Your task to perform on an android device: delete browsing data in the chrome app Image 0: 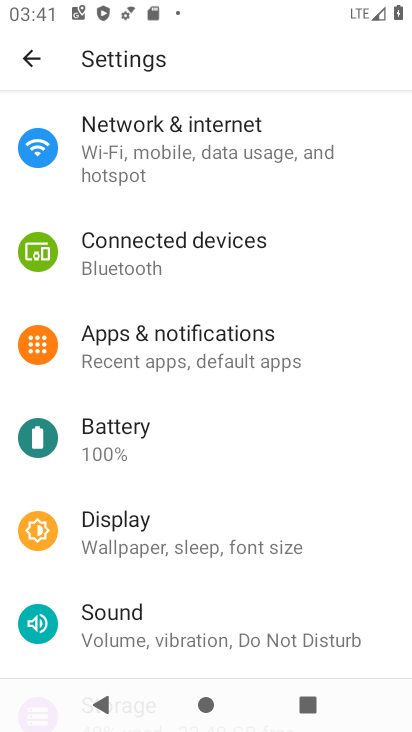
Step 0: press home button
Your task to perform on an android device: delete browsing data in the chrome app Image 1: 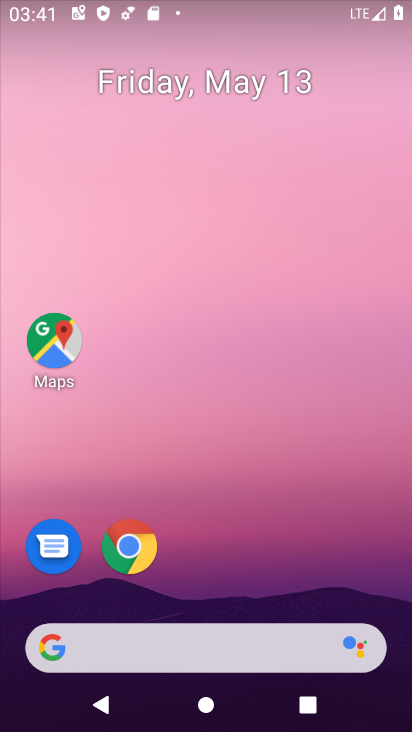
Step 1: click (131, 547)
Your task to perform on an android device: delete browsing data in the chrome app Image 2: 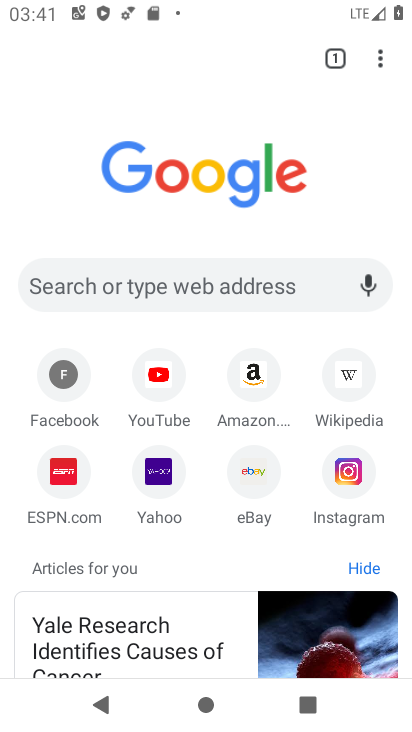
Step 2: click (398, 55)
Your task to perform on an android device: delete browsing data in the chrome app Image 3: 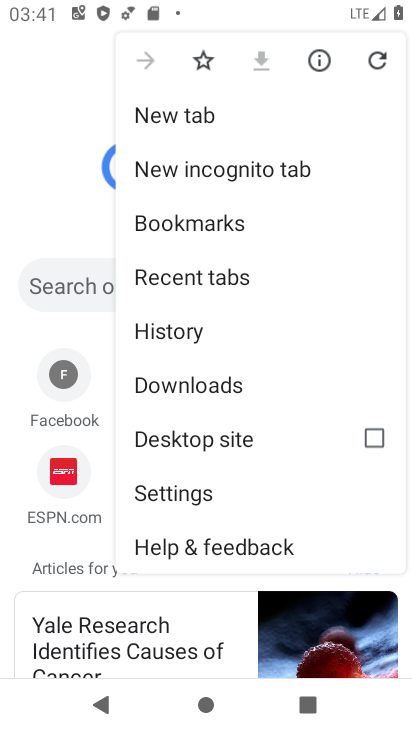
Step 3: click (157, 338)
Your task to perform on an android device: delete browsing data in the chrome app Image 4: 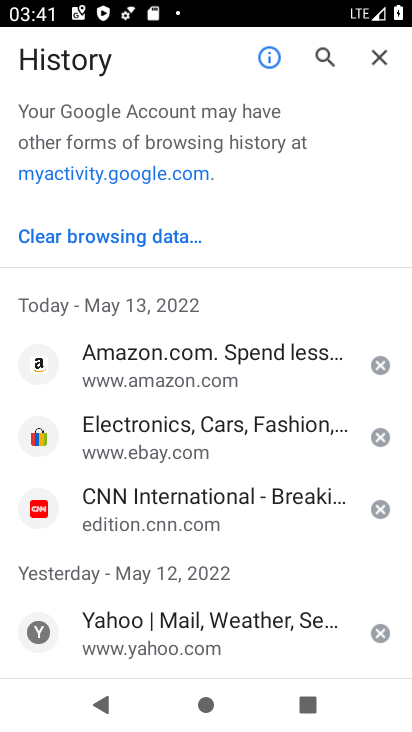
Step 4: click (155, 250)
Your task to perform on an android device: delete browsing data in the chrome app Image 5: 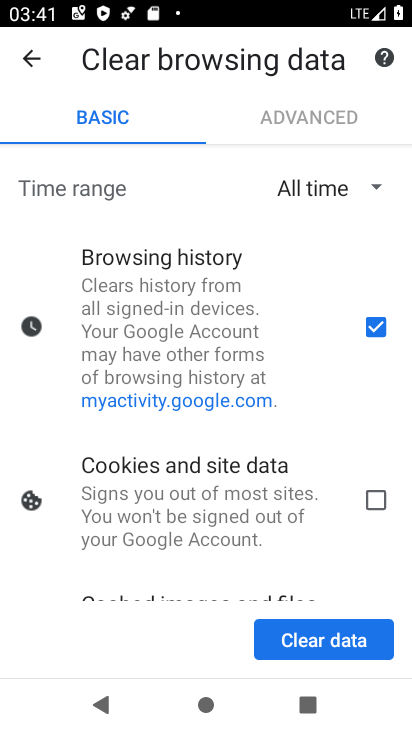
Step 5: click (300, 643)
Your task to perform on an android device: delete browsing data in the chrome app Image 6: 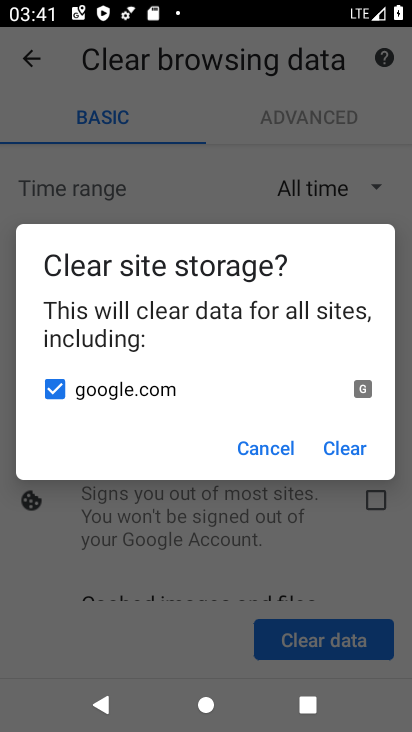
Step 6: click (349, 451)
Your task to perform on an android device: delete browsing data in the chrome app Image 7: 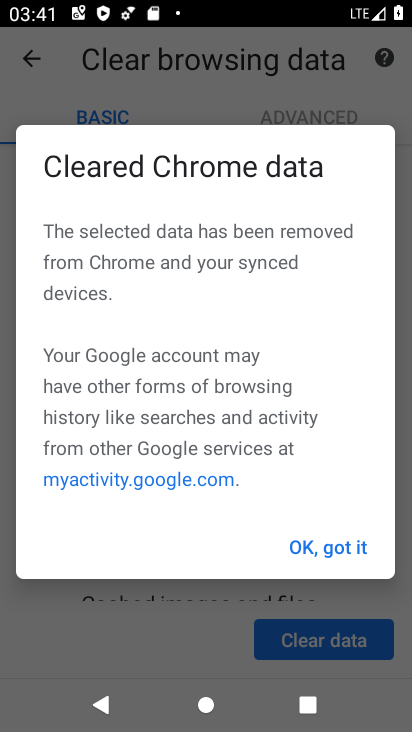
Step 7: click (322, 549)
Your task to perform on an android device: delete browsing data in the chrome app Image 8: 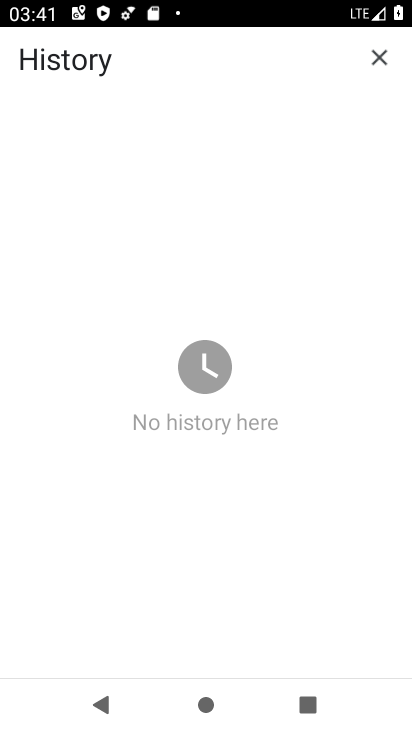
Step 8: task complete